Your task to perform on an android device: install app "Upside-Cash back on gas & food" Image 0: 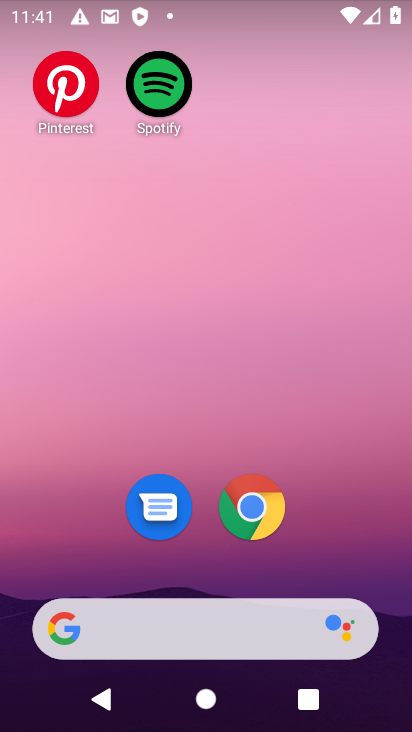
Step 0: drag from (186, 578) to (173, 17)
Your task to perform on an android device: install app "Upside-Cash back on gas & food" Image 1: 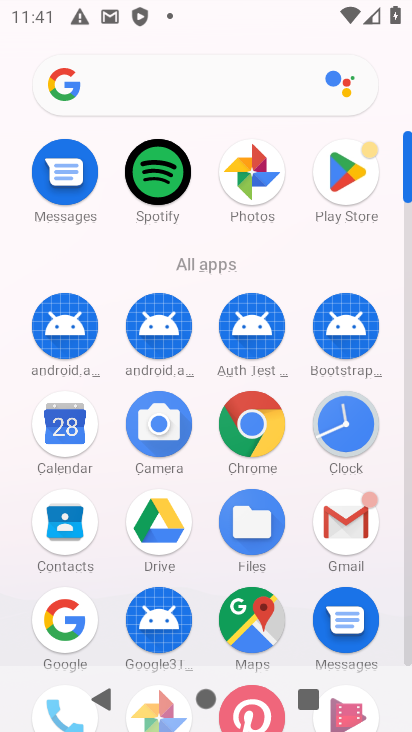
Step 1: click (349, 196)
Your task to perform on an android device: install app "Upside-Cash back on gas & food" Image 2: 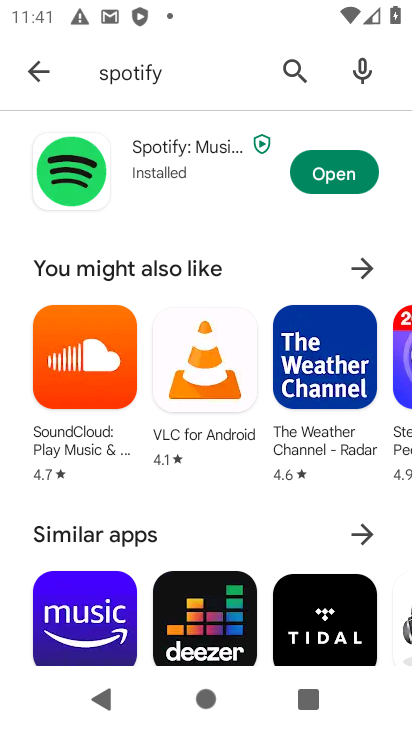
Step 2: click (158, 76)
Your task to perform on an android device: install app "Upside-Cash back on gas & food" Image 3: 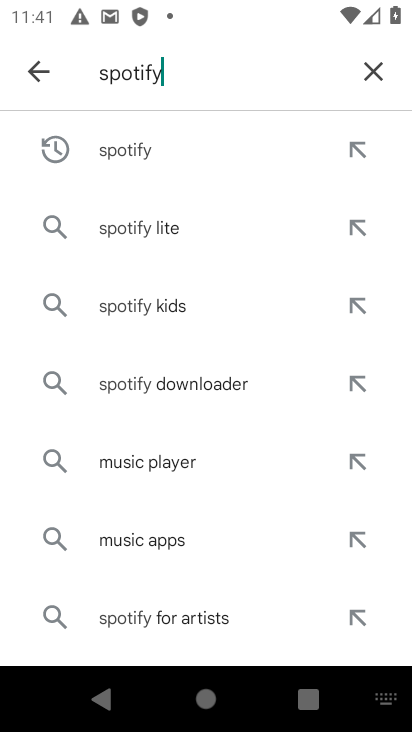
Step 3: click (368, 67)
Your task to perform on an android device: install app "Upside-Cash back on gas & food" Image 4: 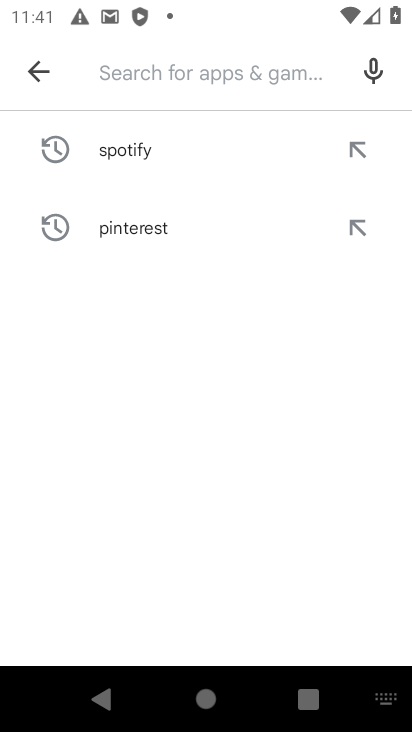
Step 4: type "Upside"
Your task to perform on an android device: install app "Upside-Cash back on gas & food" Image 5: 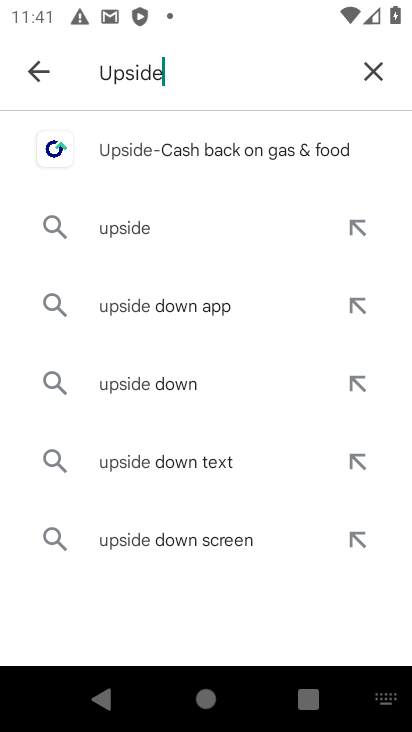
Step 5: click (169, 152)
Your task to perform on an android device: install app "Upside-Cash back on gas & food" Image 6: 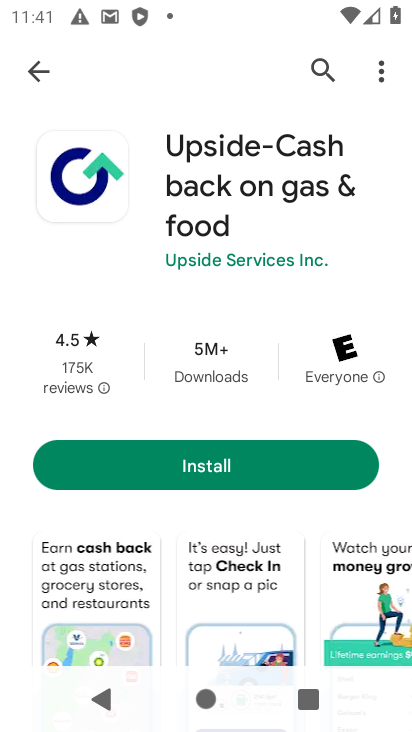
Step 6: click (206, 457)
Your task to perform on an android device: install app "Upside-Cash back on gas & food" Image 7: 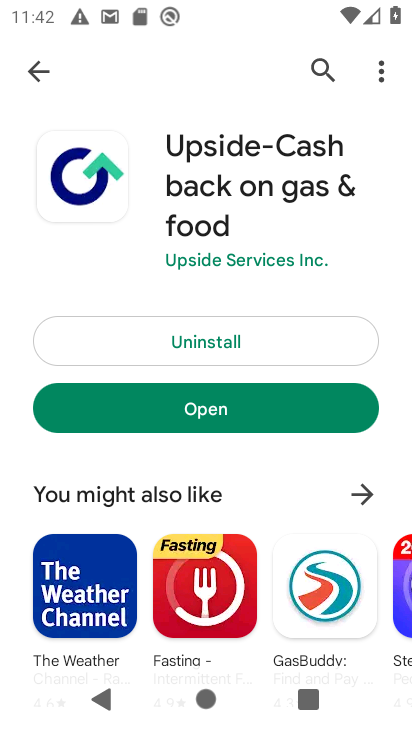
Step 7: task complete